Your task to perform on an android device: change alarm snooze length Image 0: 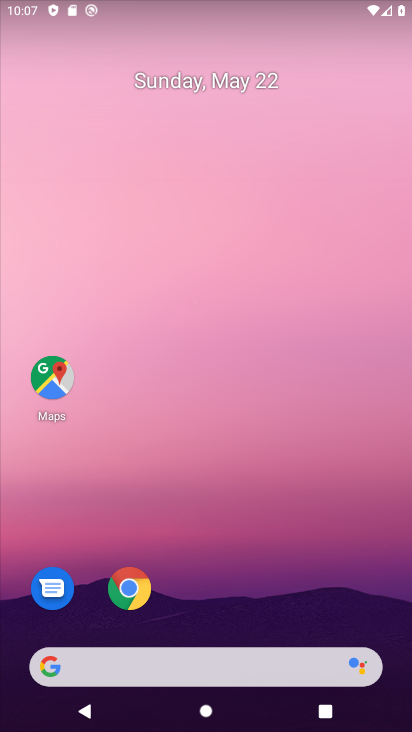
Step 0: drag from (236, 624) to (224, 101)
Your task to perform on an android device: change alarm snooze length Image 1: 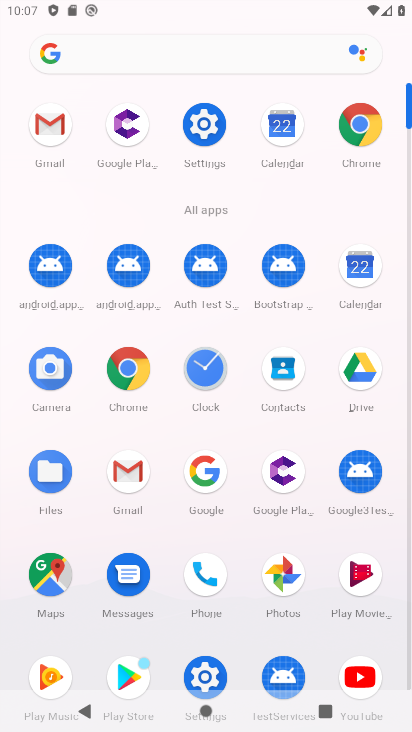
Step 1: click (208, 366)
Your task to perform on an android device: change alarm snooze length Image 2: 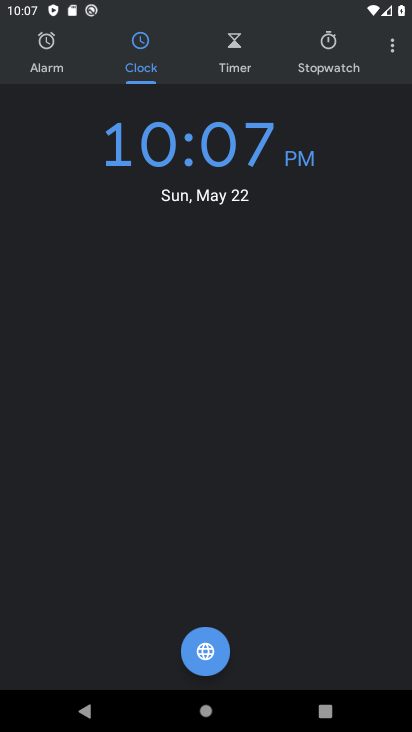
Step 2: click (393, 53)
Your task to perform on an android device: change alarm snooze length Image 3: 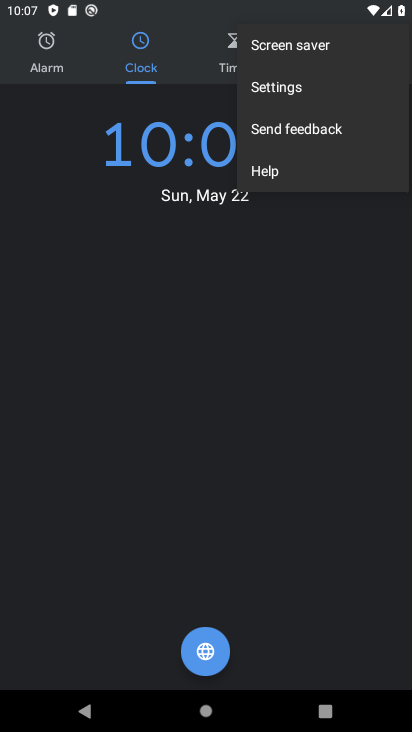
Step 3: click (290, 89)
Your task to perform on an android device: change alarm snooze length Image 4: 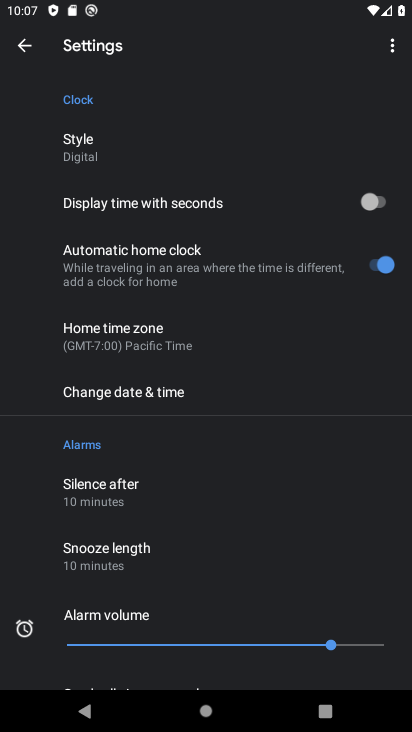
Step 4: click (94, 551)
Your task to perform on an android device: change alarm snooze length Image 5: 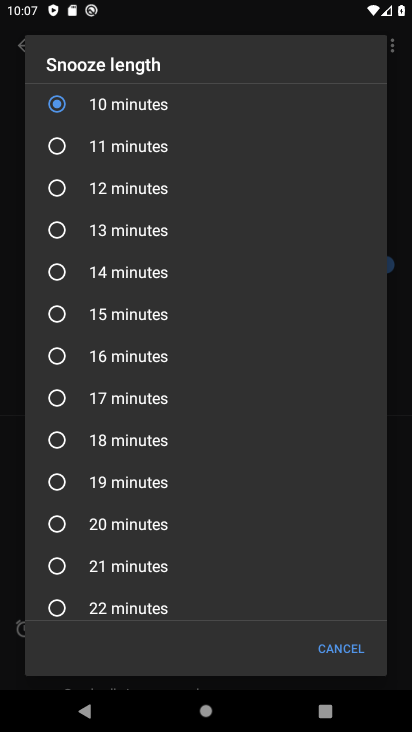
Step 5: click (59, 355)
Your task to perform on an android device: change alarm snooze length Image 6: 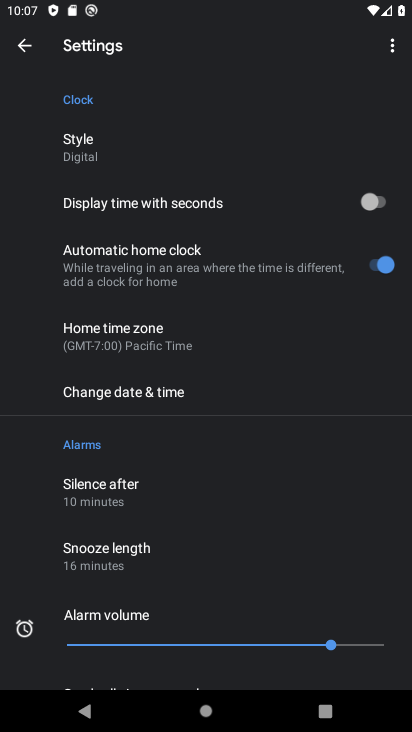
Step 6: task complete